Your task to perform on an android device: turn off priority inbox in the gmail app Image 0: 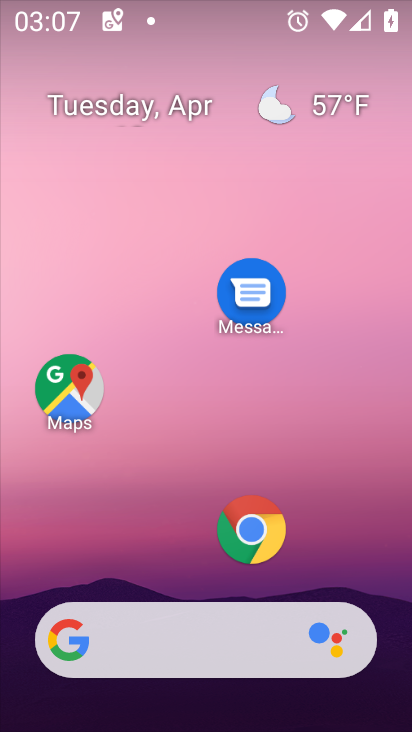
Step 0: drag from (158, 544) to (107, 161)
Your task to perform on an android device: turn off priority inbox in the gmail app Image 1: 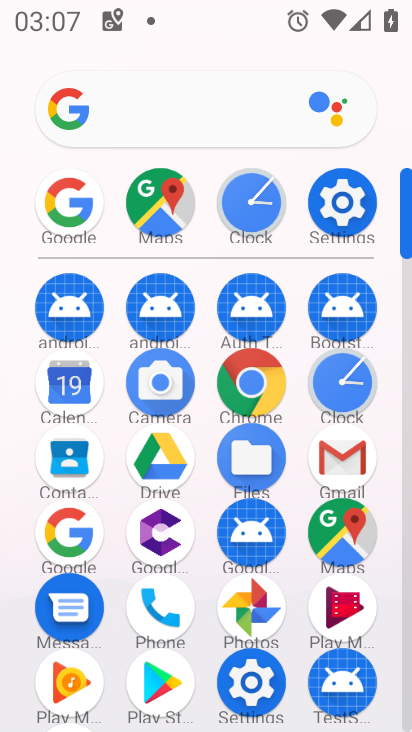
Step 1: click (337, 455)
Your task to perform on an android device: turn off priority inbox in the gmail app Image 2: 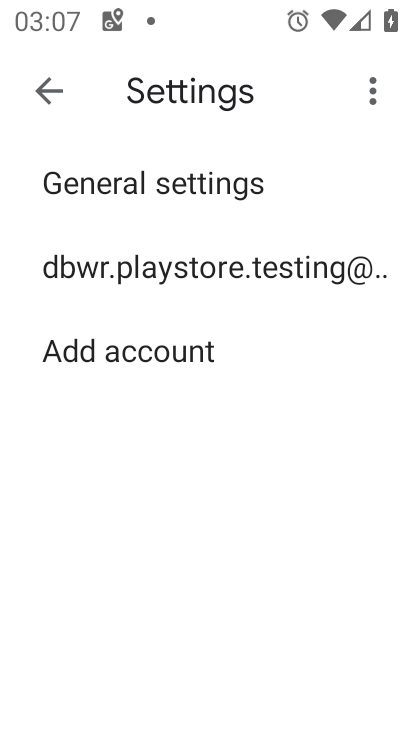
Step 2: click (150, 273)
Your task to perform on an android device: turn off priority inbox in the gmail app Image 3: 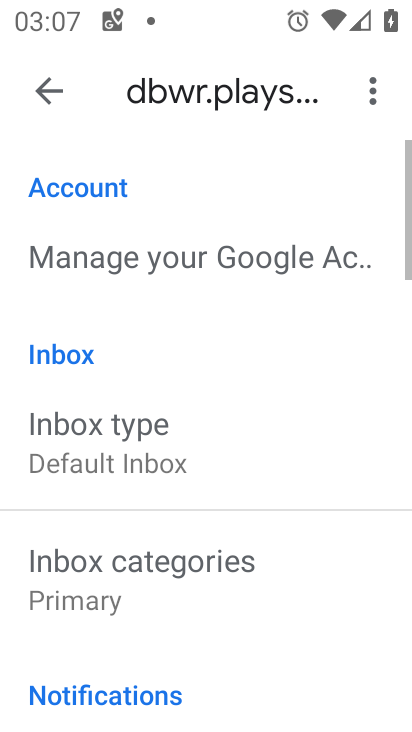
Step 3: click (148, 454)
Your task to perform on an android device: turn off priority inbox in the gmail app Image 4: 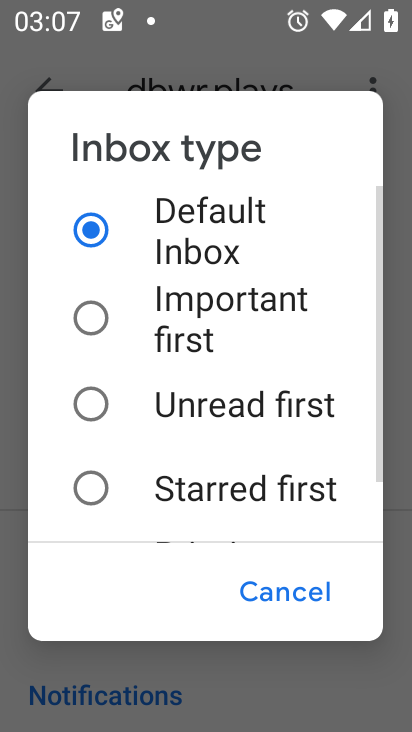
Step 4: task complete